Your task to perform on an android device: turn vacation reply on in the gmail app Image 0: 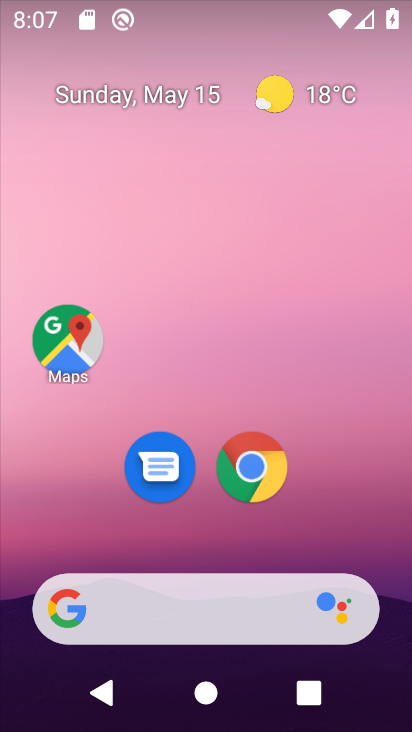
Step 0: drag from (212, 537) to (220, 33)
Your task to perform on an android device: turn vacation reply on in the gmail app Image 1: 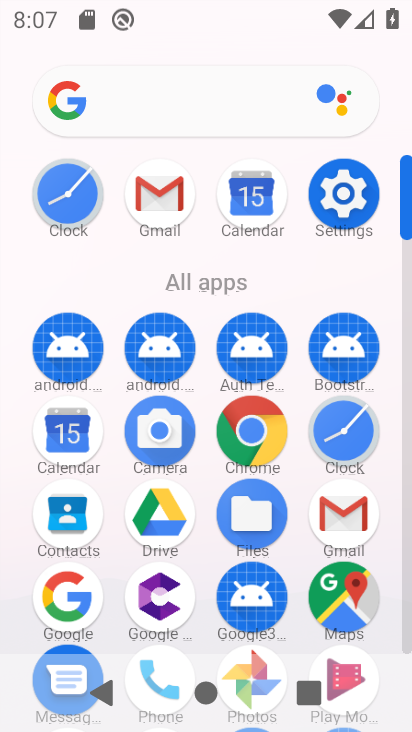
Step 1: click (348, 515)
Your task to perform on an android device: turn vacation reply on in the gmail app Image 2: 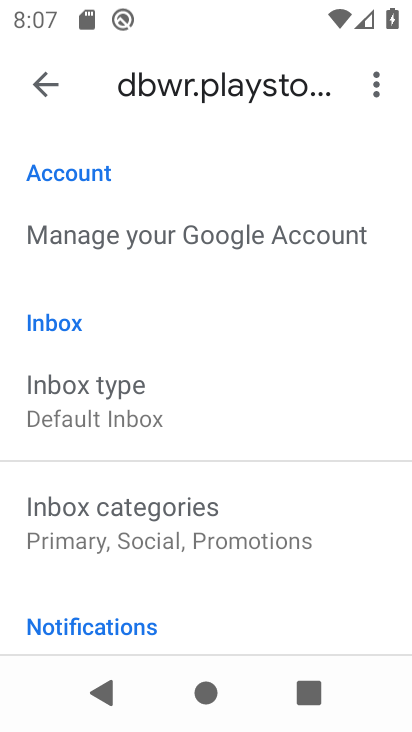
Step 2: drag from (163, 640) to (210, 139)
Your task to perform on an android device: turn vacation reply on in the gmail app Image 3: 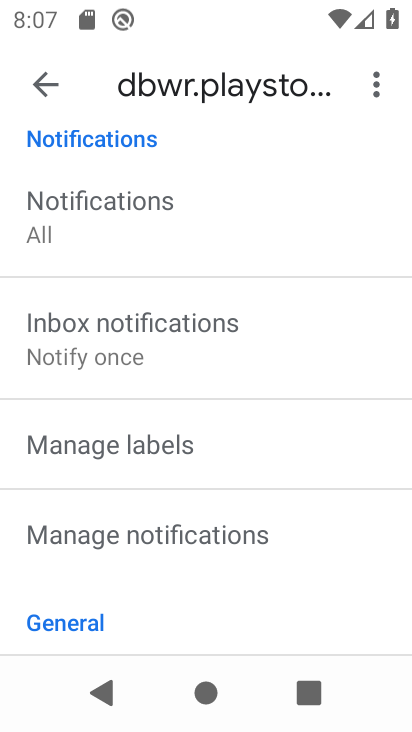
Step 3: drag from (211, 563) to (264, 204)
Your task to perform on an android device: turn vacation reply on in the gmail app Image 4: 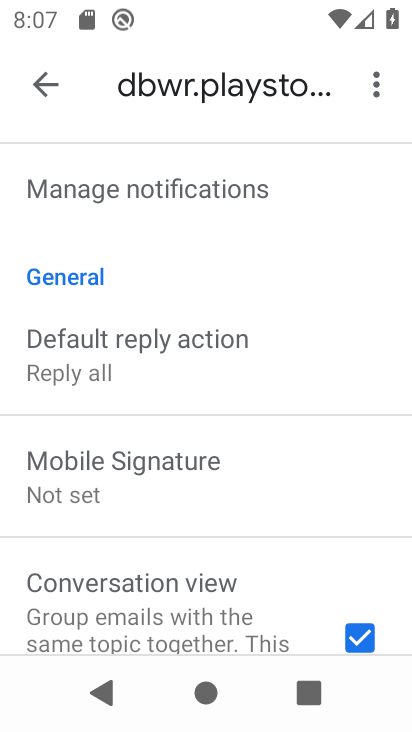
Step 4: drag from (232, 587) to (257, 252)
Your task to perform on an android device: turn vacation reply on in the gmail app Image 5: 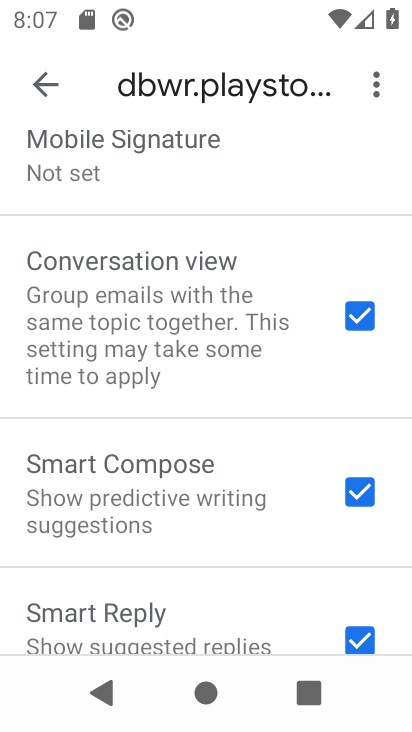
Step 5: drag from (238, 595) to (259, 234)
Your task to perform on an android device: turn vacation reply on in the gmail app Image 6: 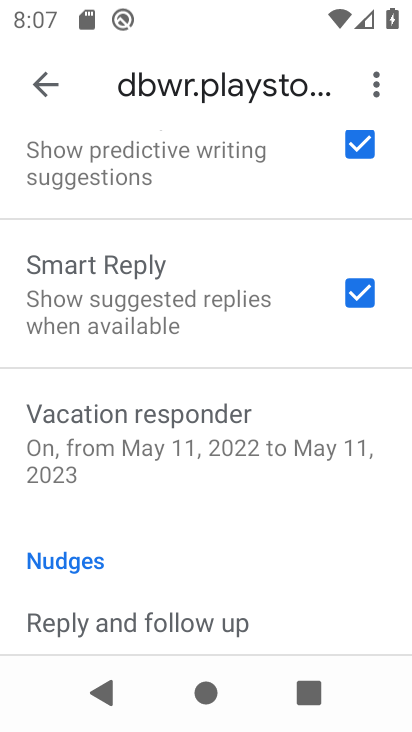
Step 6: click (236, 440)
Your task to perform on an android device: turn vacation reply on in the gmail app Image 7: 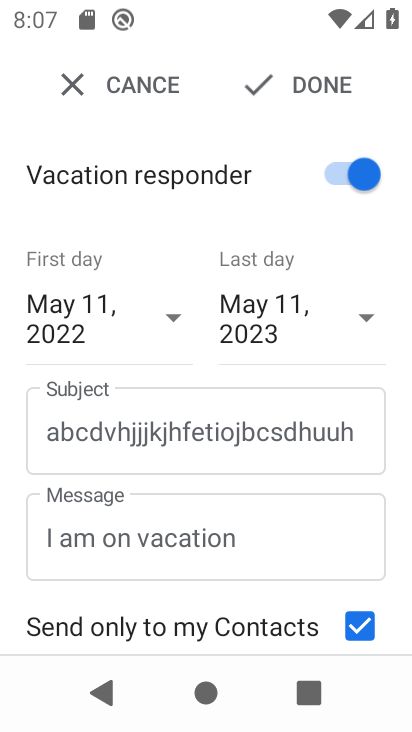
Step 7: click (332, 82)
Your task to perform on an android device: turn vacation reply on in the gmail app Image 8: 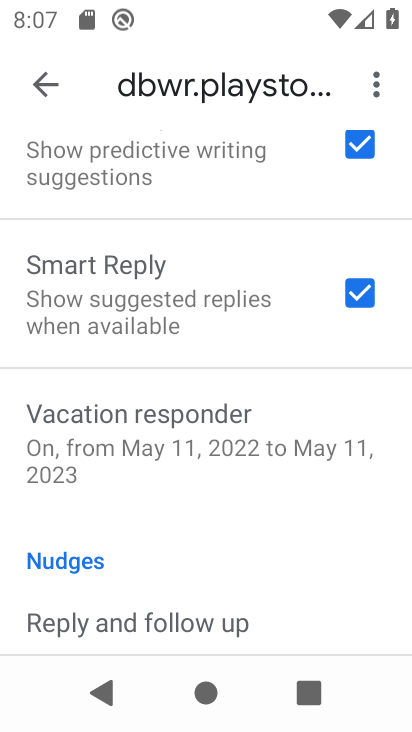
Step 8: task complete